Your task to perform on an android device: Open Google Maps and go to "Timeline" Image 0: 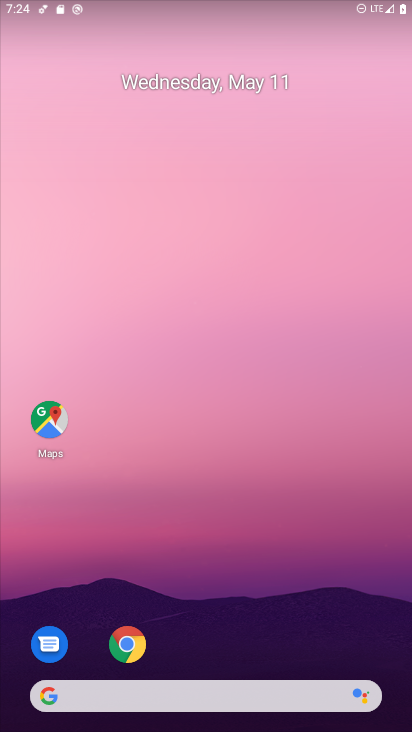
Step 0: click (55, 415)
Your task to perform on an android device: Open Google Maps and go to "Timeline" Image 1: 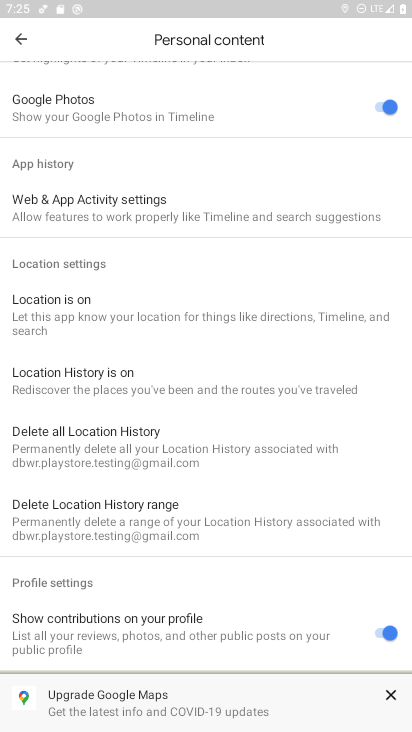
Step 1: click (18, 39)
Your task to perform on an android device: Open Google Maps and go to "Timeline" Image 2: 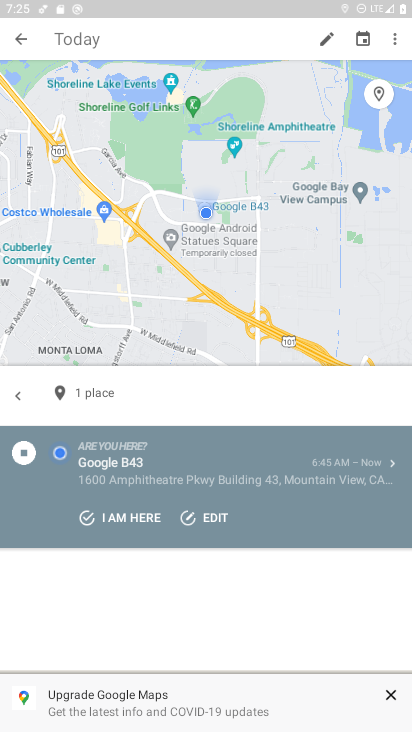
Step 2: click (395, 42)
Your task to perform on an android device: Open Google Maps and go to "Timeline" Image 3: 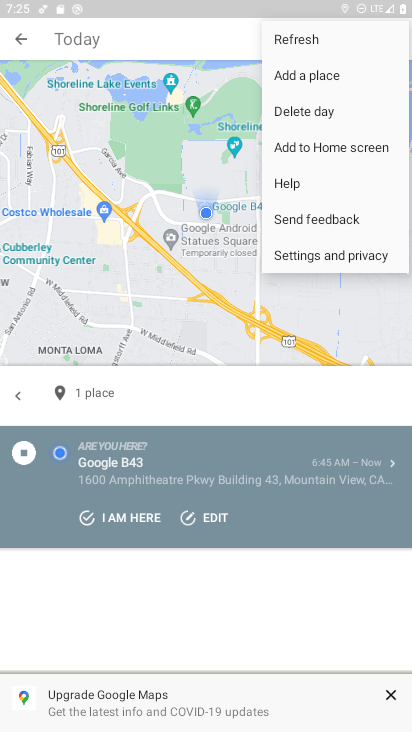
Step 3: click (213, 136)
Your task to perform on an android device: Open Google Maps and go to "Timeline" Image 4: 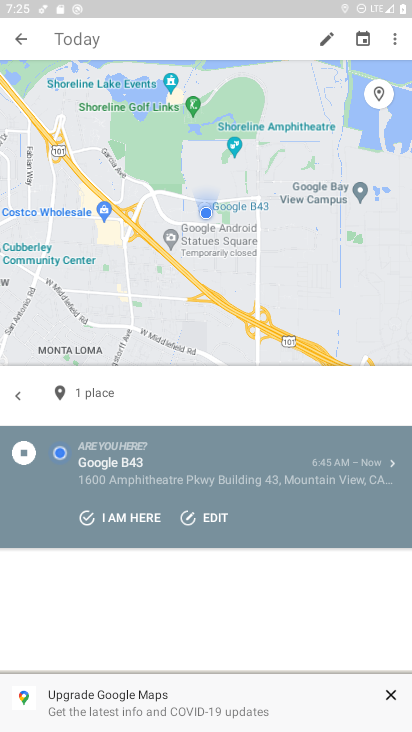
Step 4: task complete